Your task to perform on an android device: Go to ESPN.com Image 0: 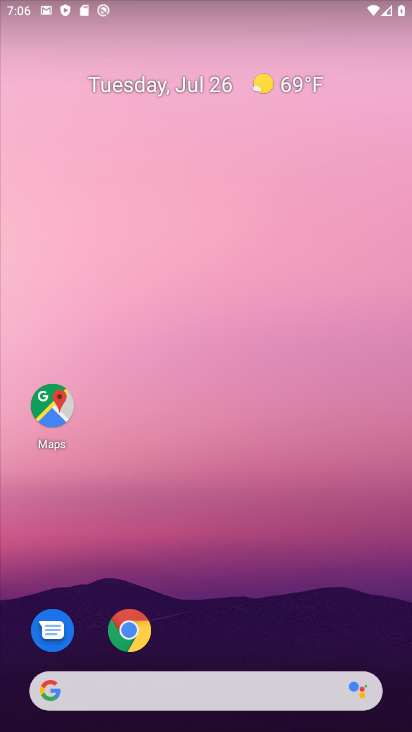
Step 0: drag from (217, 601) to (200, 131)
Your task to perform on an android device: Go to ESPN.com Image 1: 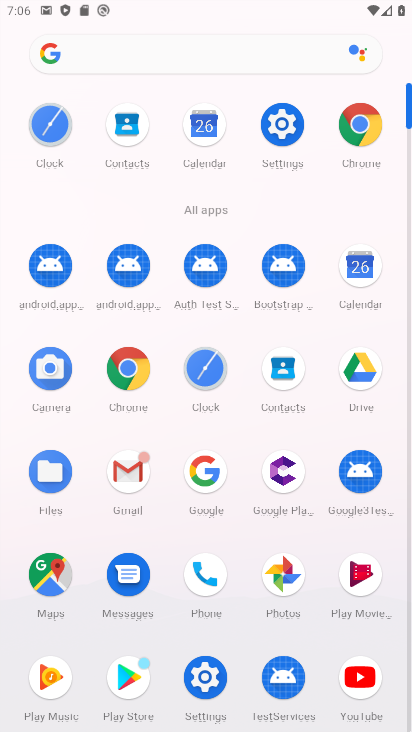
Step 1: click (131, 383)
Your task to perform on an android device: Go to ESPN.com Image 2: 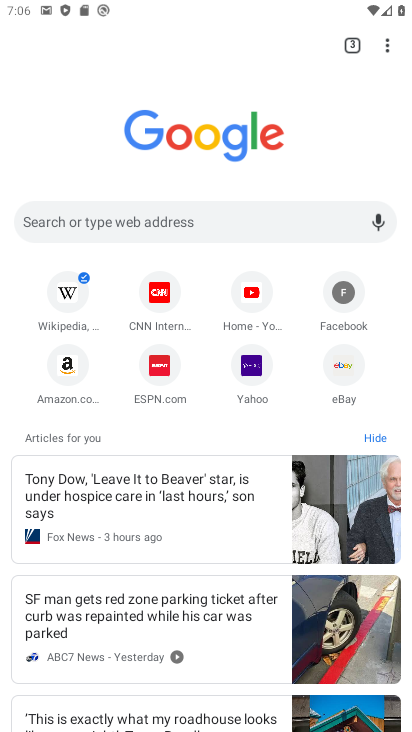
Step 2: click (162, 373)
Your task to perform on an android device: Go to ESPN.com Image 3: 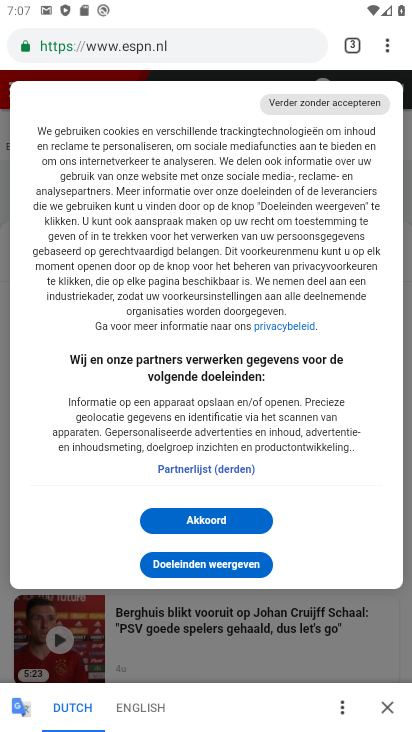
Step 3: task complete